Your task to perform on an android device: Show me recent news Image 0: 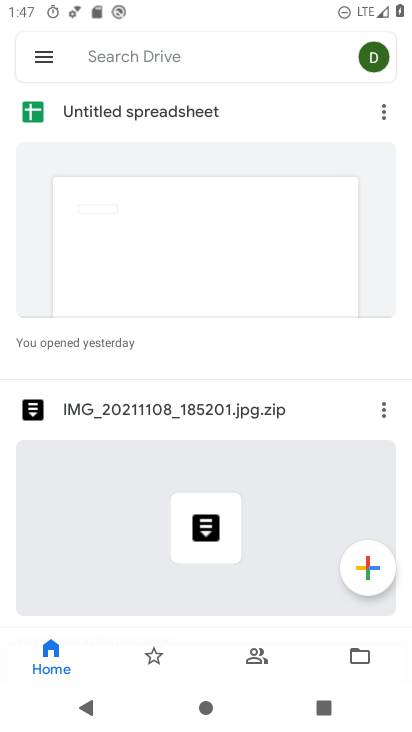
Step 0: press home button
Your task to perform on an android device: Show me recent news Image 1: 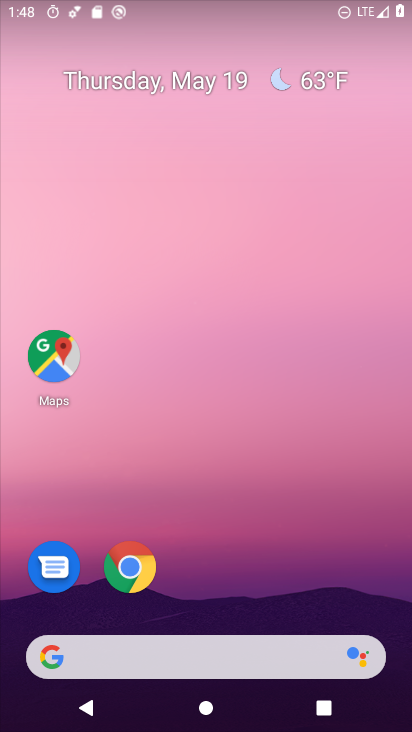
Step 1: click (56, 658)
Your task to perform on an android device: Show me recent news Image 2: 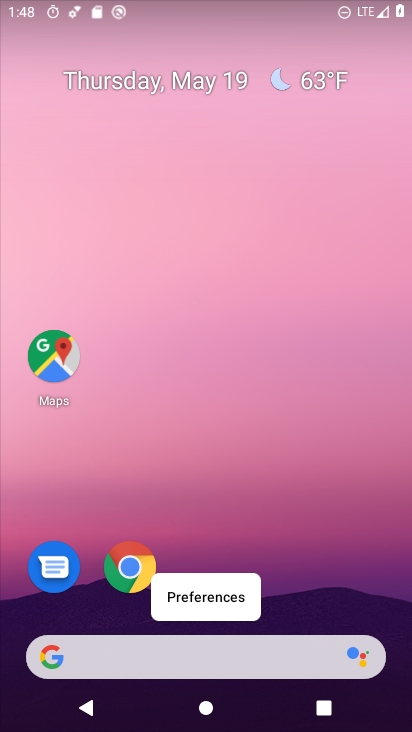
Step 2: click (59, 663)
Your task to perform on an android device: Show me recent news Image 3: 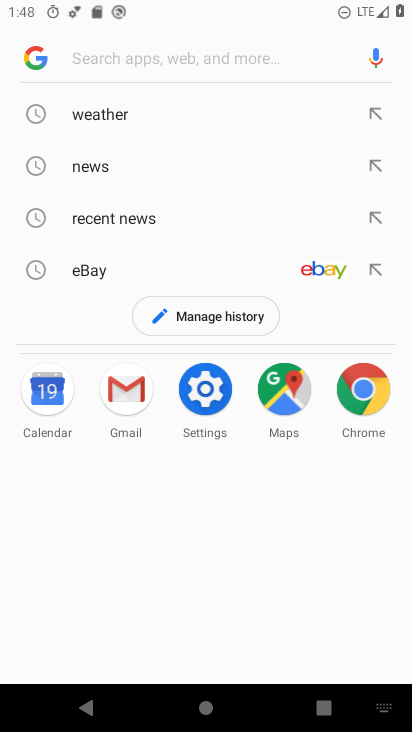
Step 3: click (96, 220)
Your task to perform on an android device: Show me recent news Image 4: 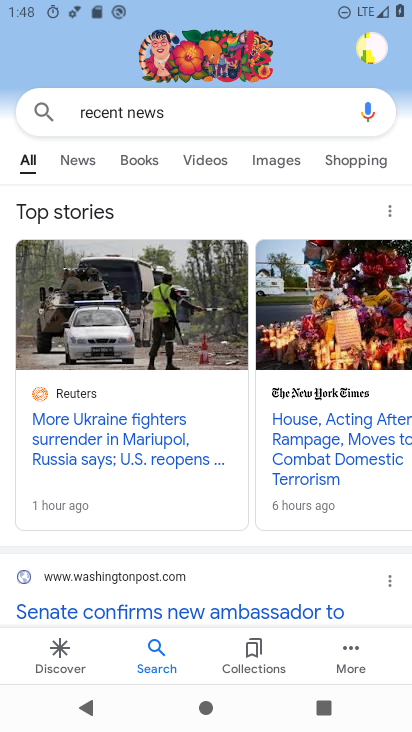
Step 4: click (86, 161)
Your task to perform on an android device: Show me recent news Image 5: 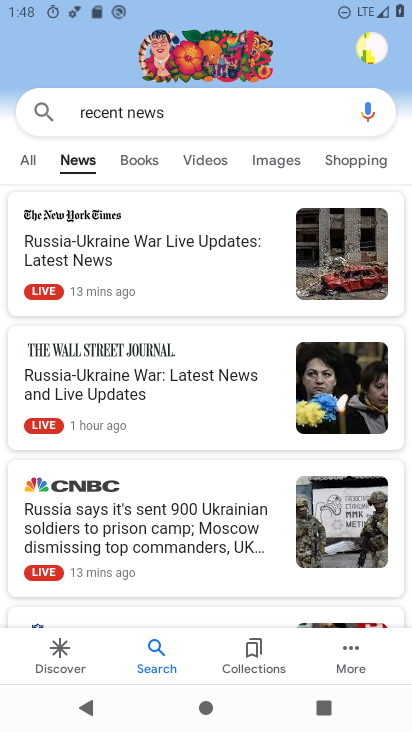
Step 5: task complete